Your task to perform on an android device: turn off priority inbox in the gmail app Image 0: 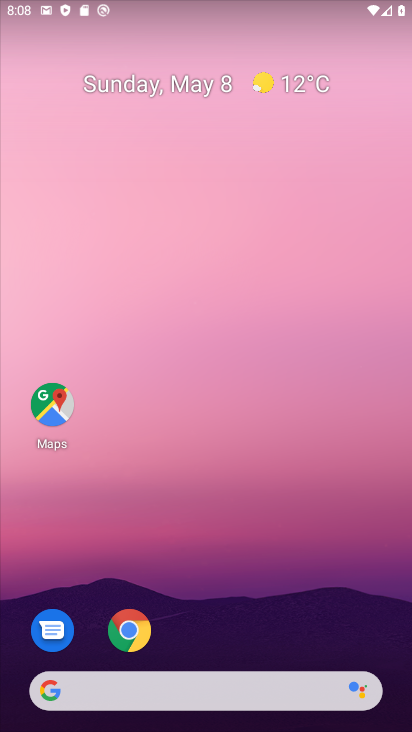
Step 0: drag from (318, 524) to (369, 207)
Your task to perform on an android device: turn off priority inbox in the gmail app Image 1: 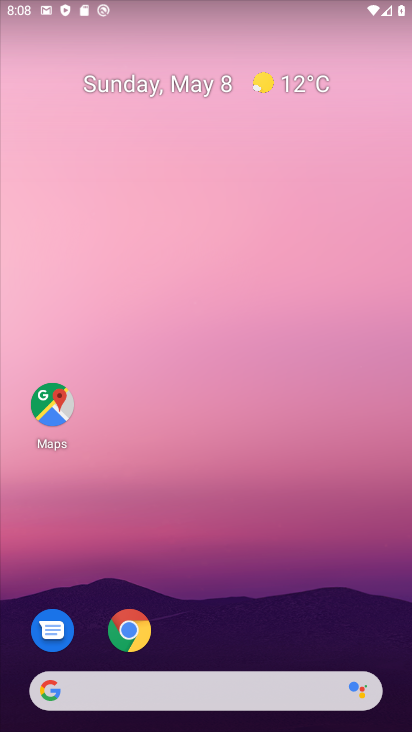
Step 1: drag from (227, 621) to (373, 148)
Your task to perform on an android device: turn off priority inbox in the gmail app Image 2: 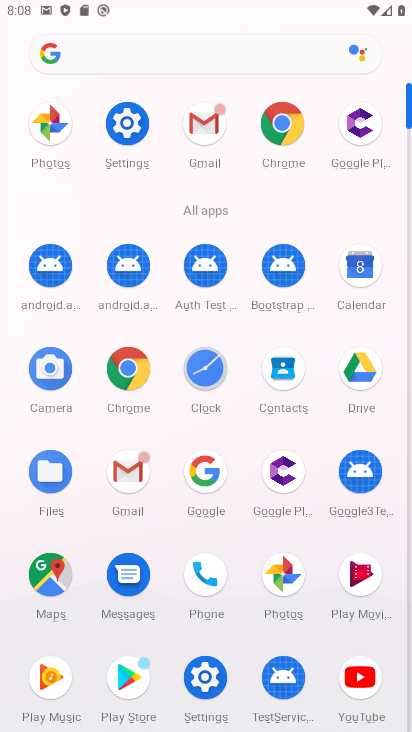
Step 2: click (208, 121)
Your task to perform on an android device: turn off priority inbox in the gmail app Image 3: 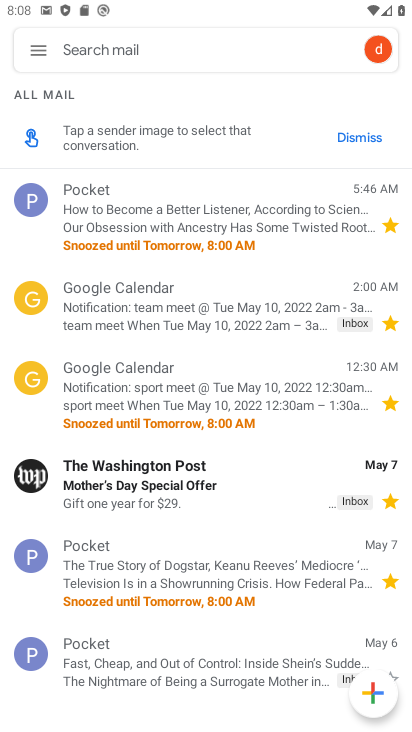
Step 3: click (43, 58)
Your task to perform on an android device: turn off priority inbox in the gmail app Image 4: 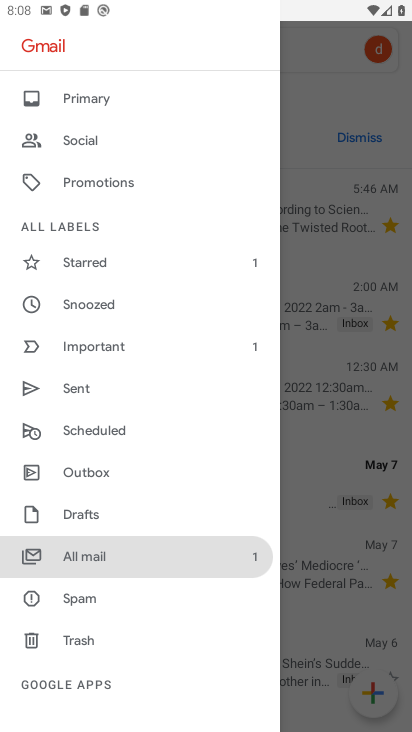
Step 4: drag from (258, 360) to (258, 52)
Your task to perform on an android device: turn off priority inbox in the gmail app Image 5: 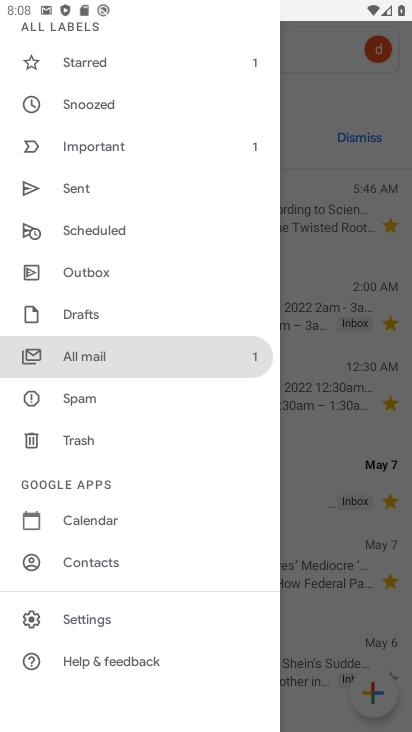
Step 5: click (77, 621)
Your task to perform on an android device: turn off priority inbox in the gmail app Image 6: 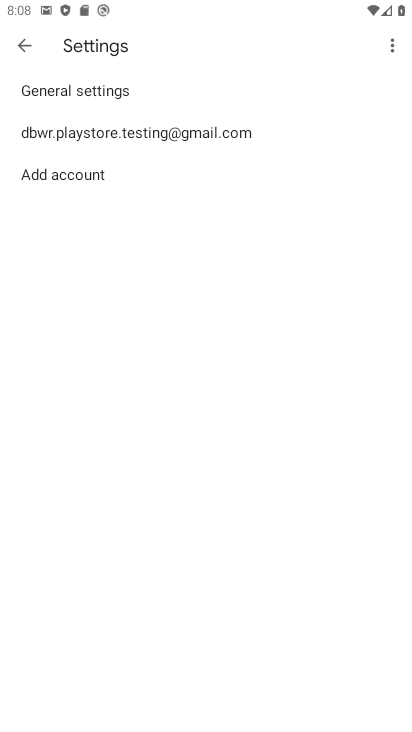
Step 6: click (222, 138)
Your task to perform on an android device: turn off priority inbox in the gmail app Image 7: 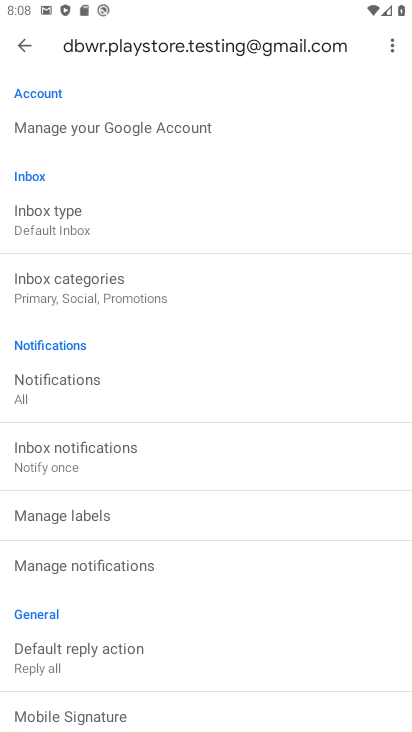
Step 7: click (41, 233)
Your task to perform on an android device: turn off priority inbox in the gmail app Image 8: 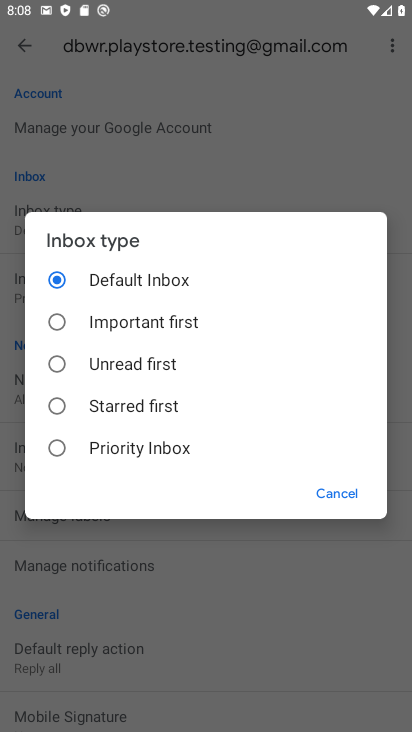
Step 8: click (116, 286)
Your task to perform on an android device: turn off priority inbox in the gmail app Image 9: 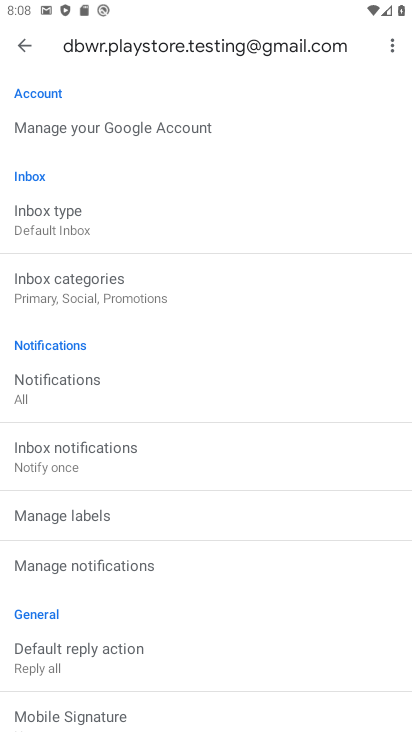
Step 9: task complete